Your task to perform on an android device: turn off location history Image 0: 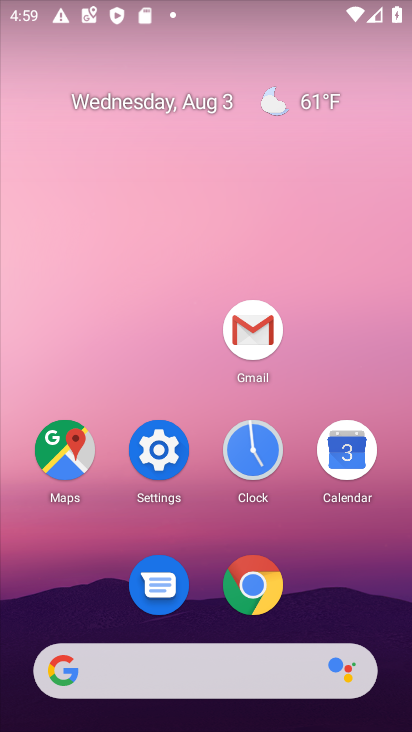
Step 0: click (148, 462)
Your task to perform on an android device: turn off location history Image 1: 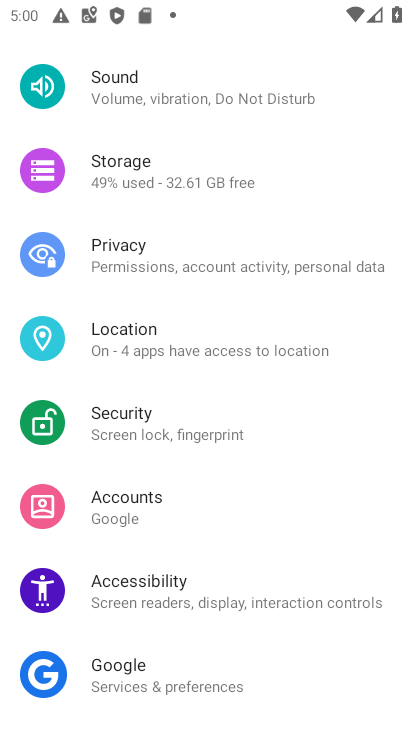
Step 1: drag from (264, 657) to (249, 299)
Your task to perform on an android device: turn off location history Image 2: 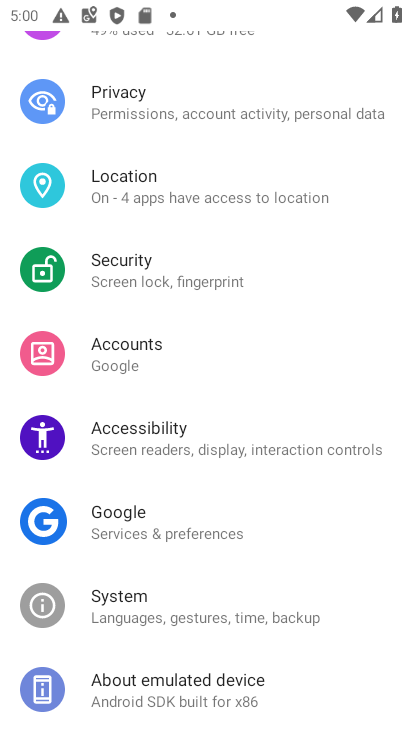
Step 2: drag from (258, 136) to (277, 567)
Your task to perform on an android device: turn off location history Image 3: 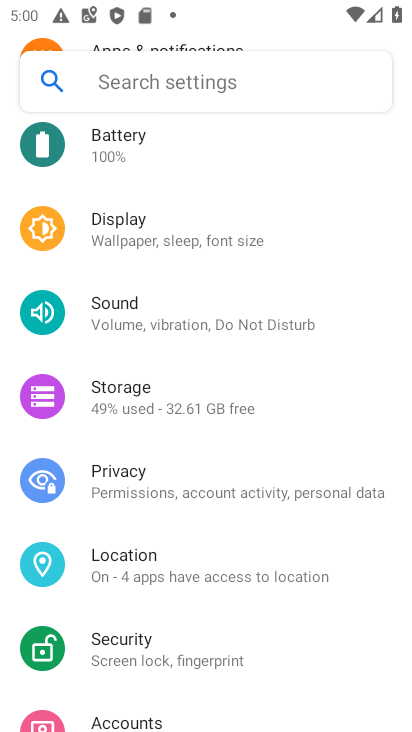
Step 3: click (114, 547)
Your task to perform on an android device: turn off location history Image 4: 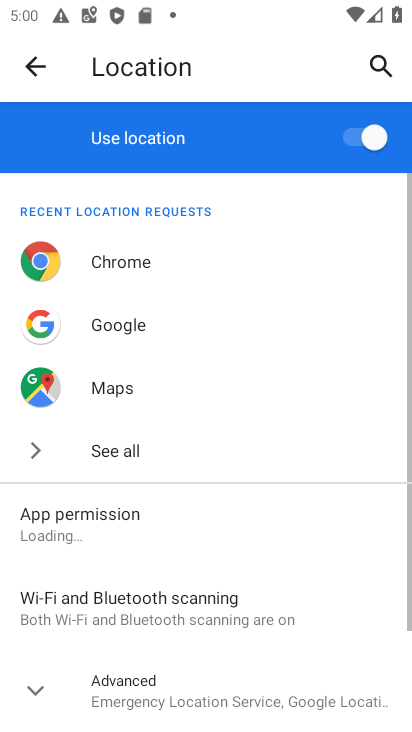
Step 4: click (226, 165)
Your task to perform on an android device: turn off location history Image 5: 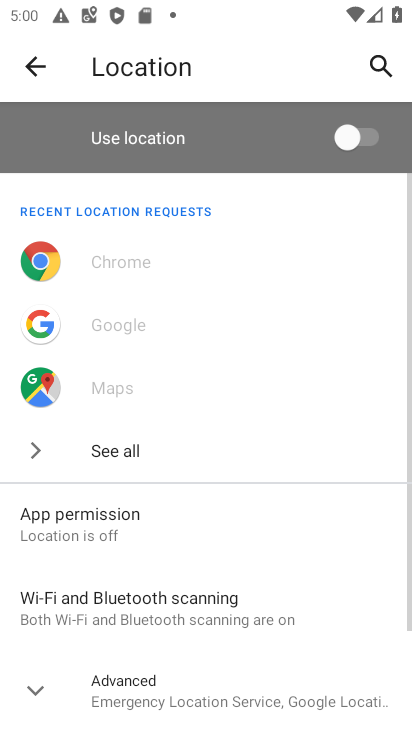
Step 5: click (42, 690)
Your task to perform on an android device: turn off location history Image 6: 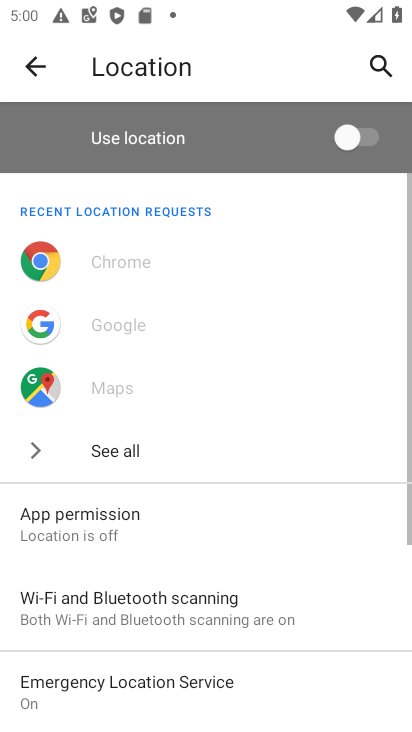
Step 6: drag from (317, 537) to (297, 333)
Your task to perform on an android device: turn off location history Image 7: 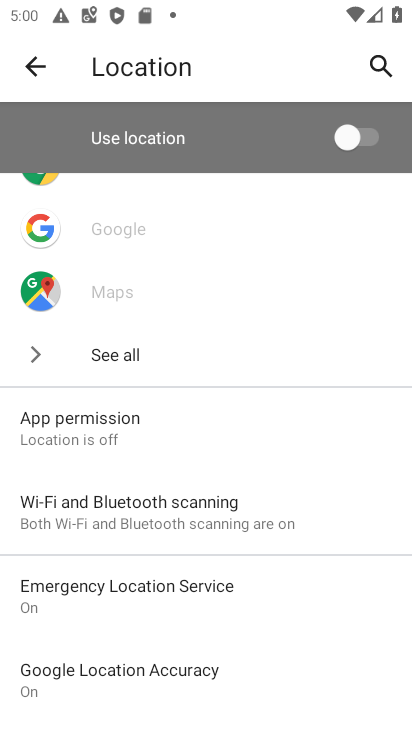
Step 7: drag from (284, 665) to (273, 293)
Your task to perform on an android device: turn off location history Image 8: 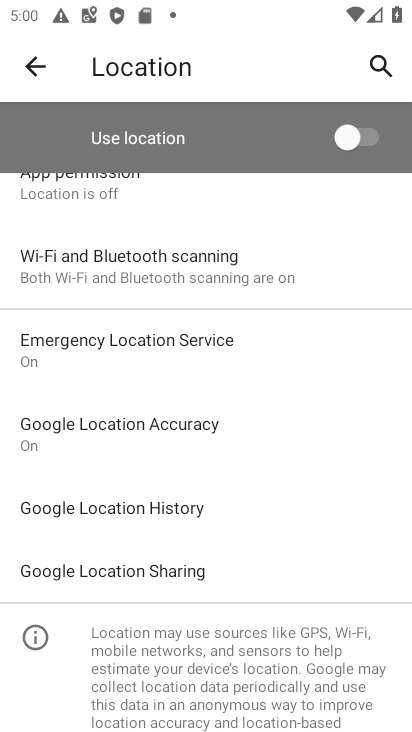
Step 8: click (128, 509)
Your task to perform on an android device: turn off location history Image 9: 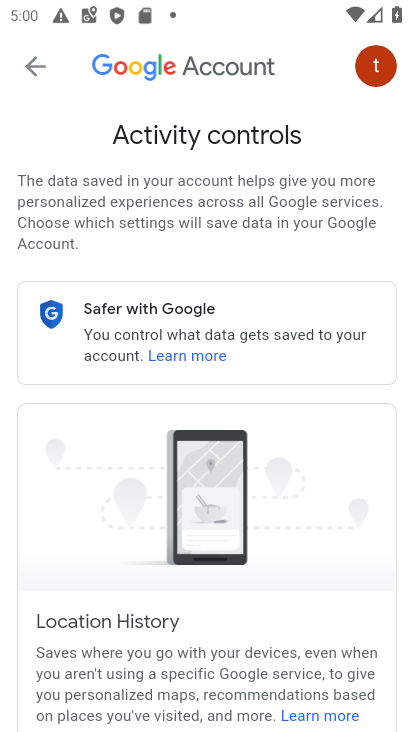
Step 9: task complete